Your task to perform on an android device: open wifi settings Image 0: 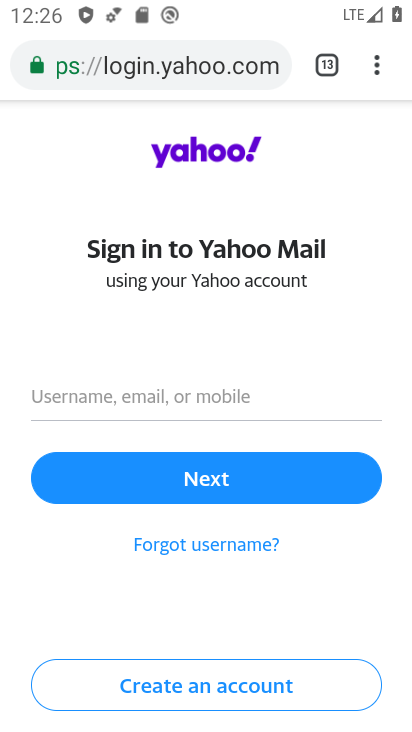
Step 0: press home button
Your task to perform on an android device: open wifi settings Image 1: 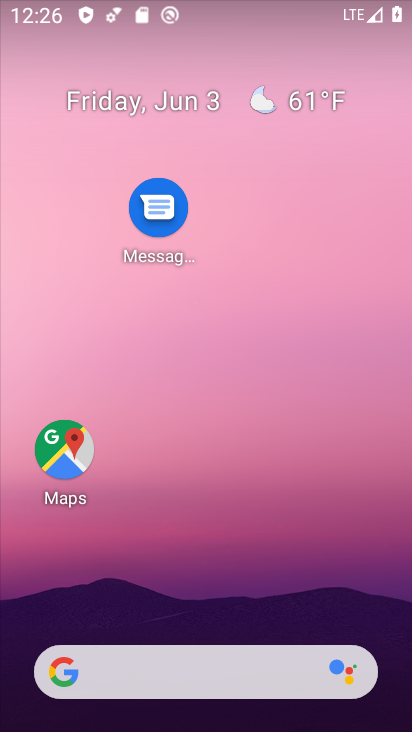
Step 1: drag from (211, 615) to (211, 10)
Your task to perform on an android device: open wifi settings Image 2: 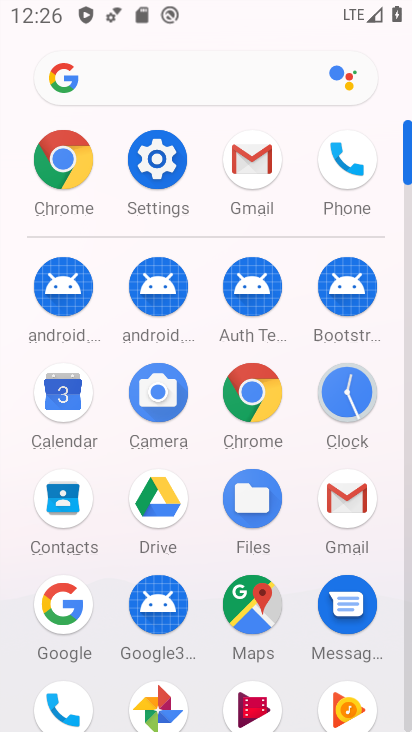
Step 2: click (171, 151)
Your task to perform on an android device: open wifi settings Image 3: 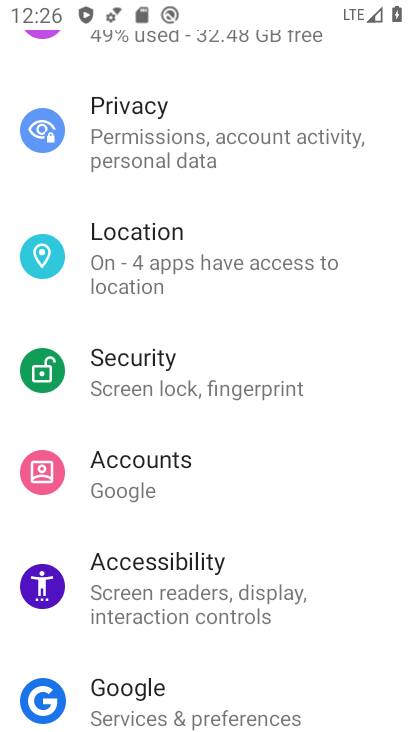
Step 3: drag from (199, 161) to (207, 625)
Your task to perform on an android device: open wifi settings Image 4: 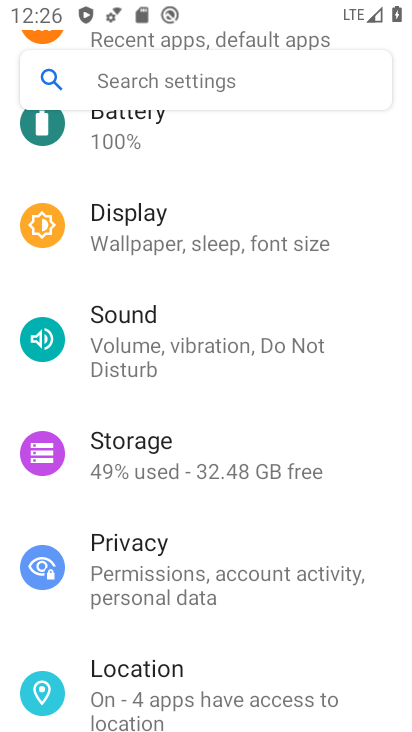
Step 4: drag from (237, 157) to (207, 603)
Your task to perform on an android device: open wifi settings Image 5: 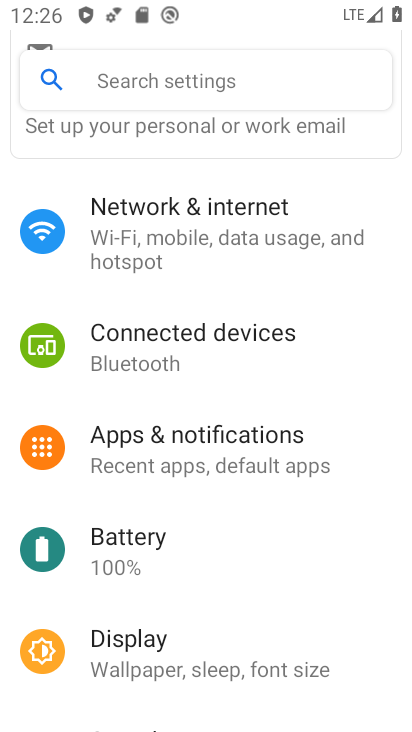
Step 5: click (184, 244)
Your task to perform on an android device: open wifi settings Image 6: 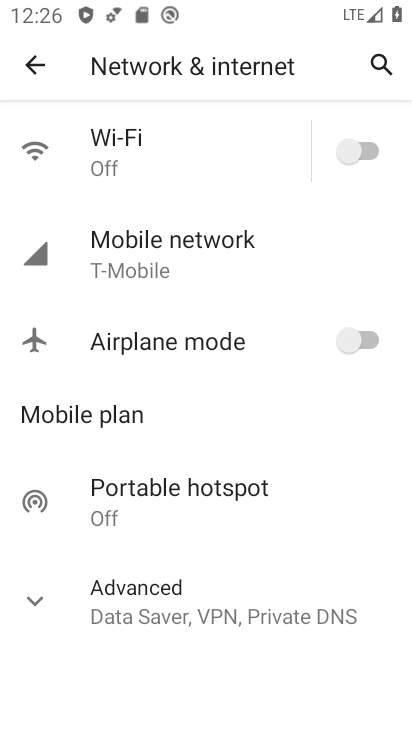
Step 6: click (116, 141)
Your task to perform on an android device: open wifi settings Image 7: 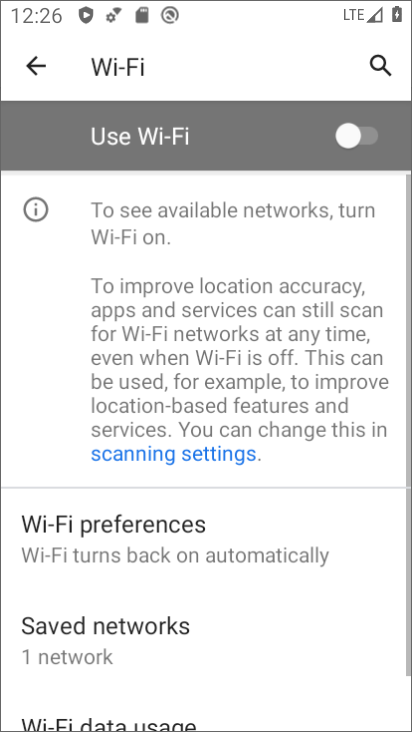
Step 7: task complete